Your task to perform on an android device: Open my contact list Image 0: 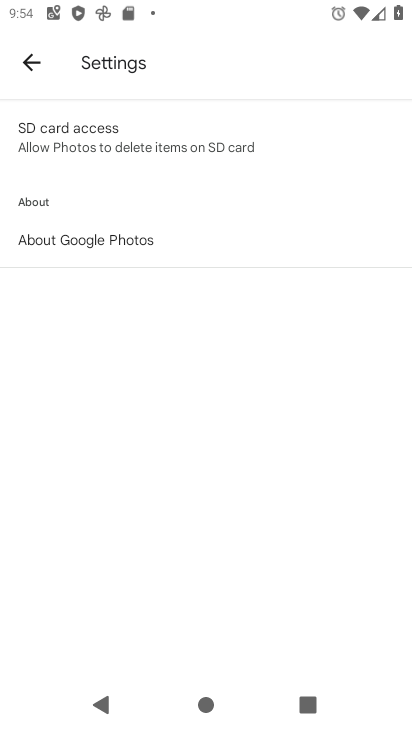
Step 0: press home button
Your task to perform on an android device: Open my contact list Image 1: 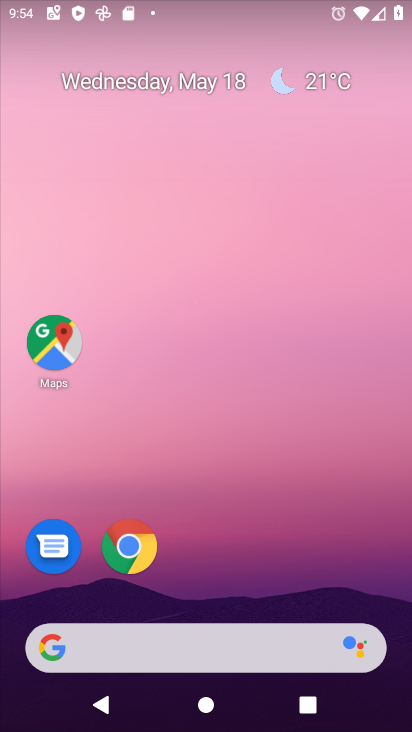
Step 1: drag from (385, 621) to (297, 106)
Your task to perform on an android device: Open my contact list Image 2: 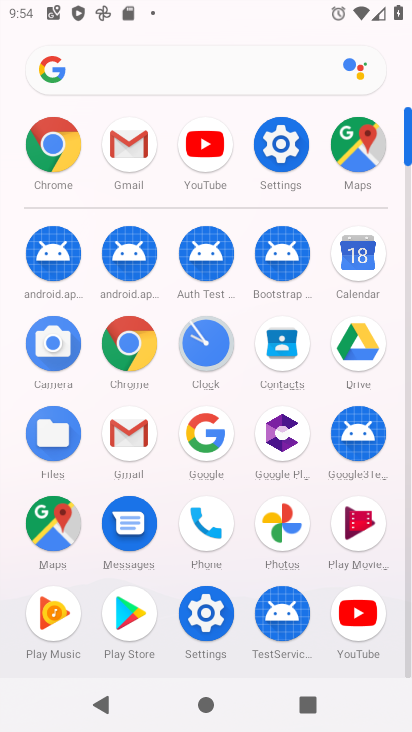
Step 2: click (277, 350)
Your task to perform on an android device: Open my contact list Image 3: 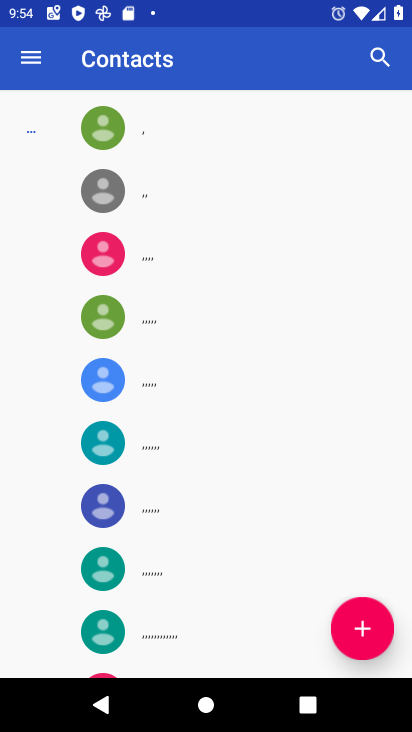
Step 3: task complete